Your task to perform on an android device: open chrome and create a bookmark for the current page Image 0: 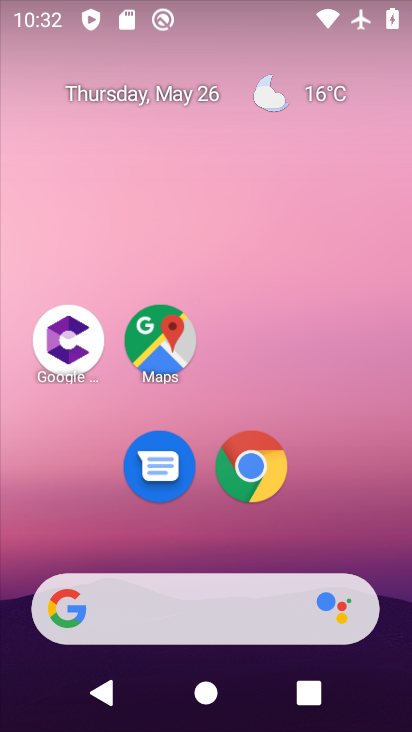
Step 0: click (247, 469)
Your task to perform on an android device: open chrome and create a bookmark for the current page Image 1: 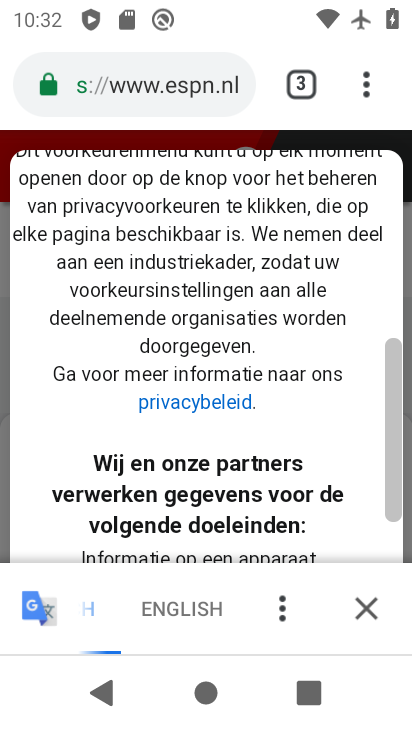
Step 1: click (364, 78)
Your task to perform on an android device: open chrome and create a bookmark for the current page Image 2: 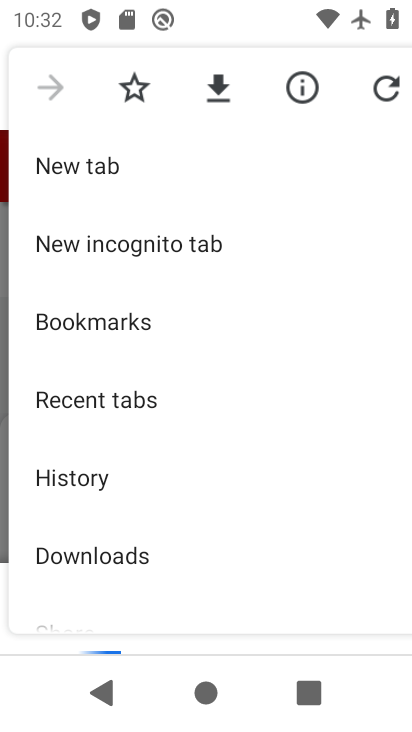
Step 2: click (143, 88)
Your task to perform on an android device: open chrome and create a bookmark for the current page Image 3: 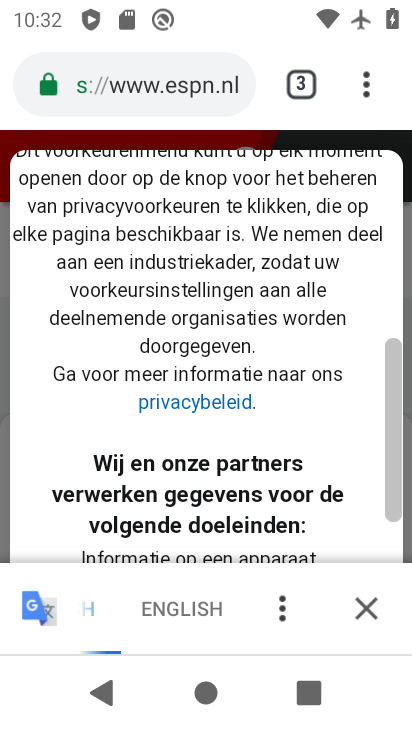
Step 3: task complete